Your task to perform on an android device: turn off picture-in-picture Image 0: 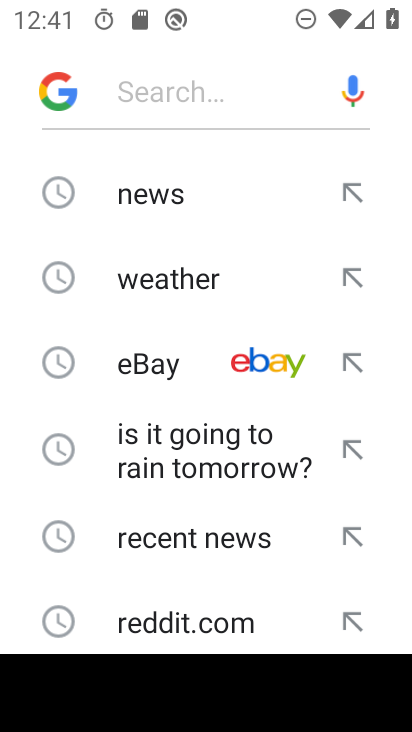
Step 0: press home button
Your task to perform on an android device: turn off picture-in-picture Image 1: 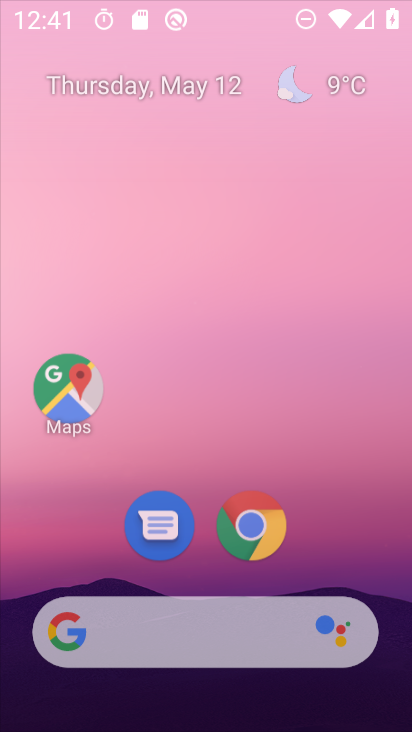
Step 1: drag from (213, 716) to (212, 310)
Your task to perform on an android device: turn off picture-in-picture Image 2: 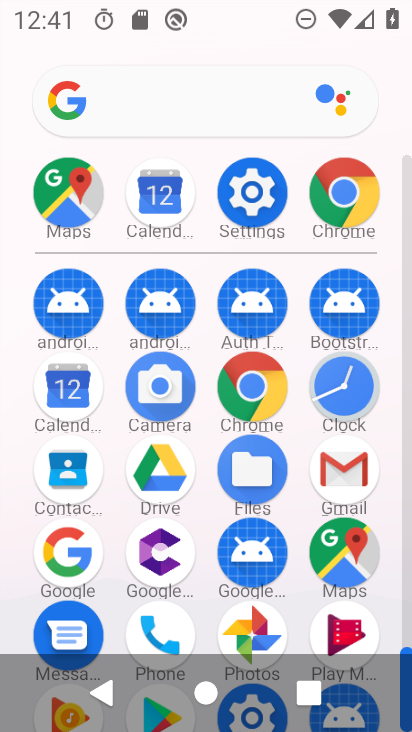
Step 2: click (250, 185)
Your task to perform on an android device: turn off picture-in-picture Image 3: 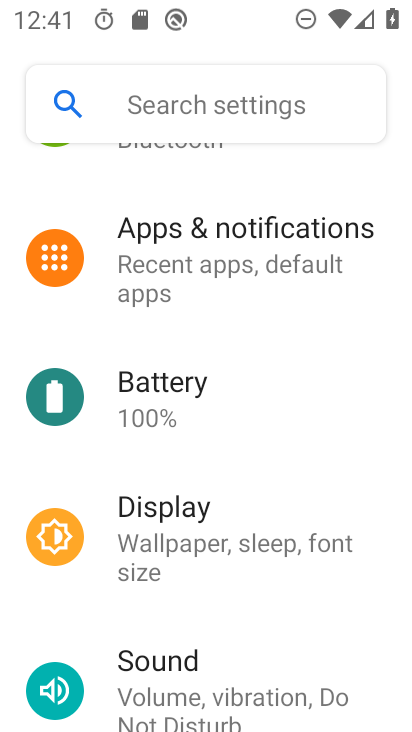
Step 3: click (188, 269)
Your task to perform on an android device: turn off picture-in-picture Image 4: 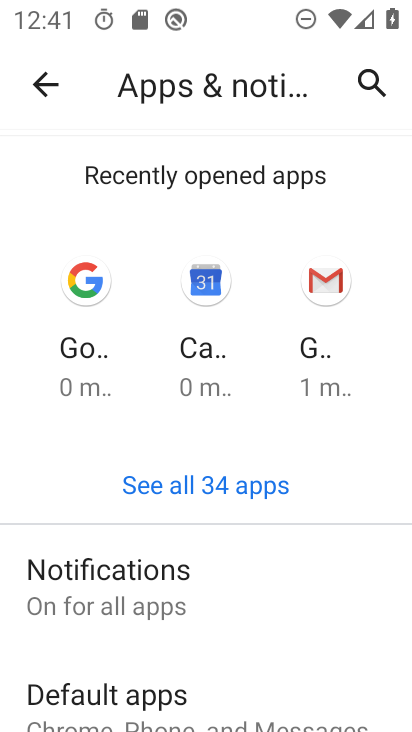
Step 4: drag from (134, 653) to (136, 257)
Your task to perform on an android device: turn off picture-in-picture Image 5: 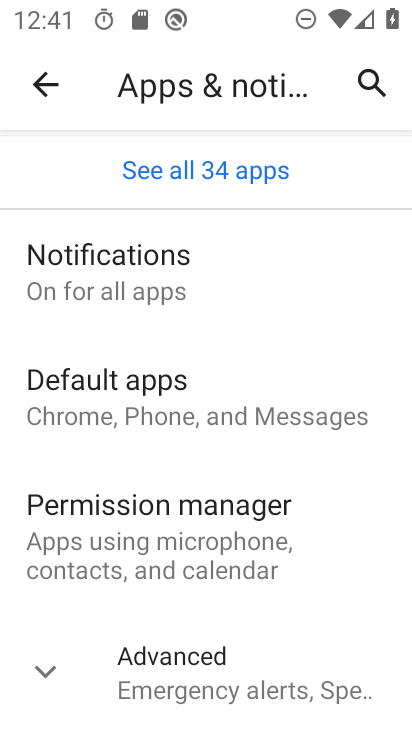
Step 5: click (194, 674)
Your task to perform on an android device: turn off picture-in-picture Image 6: 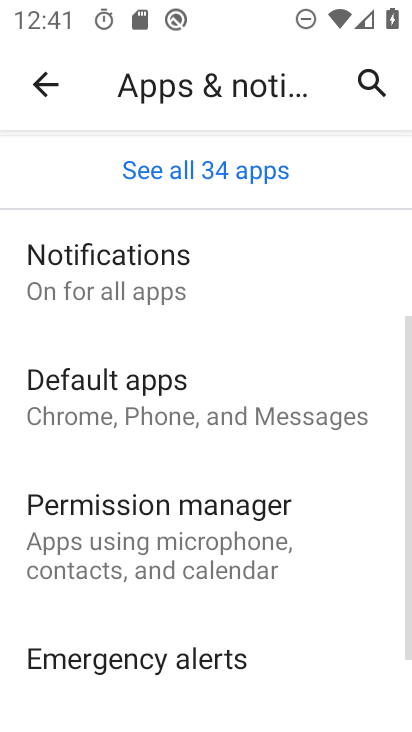
Step 6: drag from (208, 688) to (220, 187)
Your task to perform on an android device: turn off picture-in-picture Image 7: 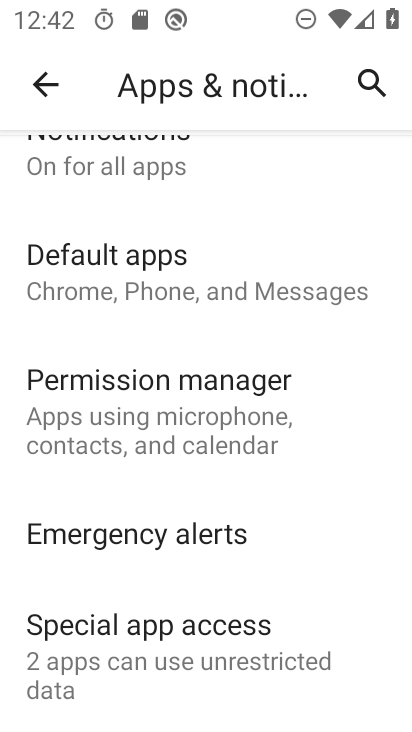
Step 7: click (120, 651)
Your task to perform on an android device: turn off picture-in-picture Image 8: 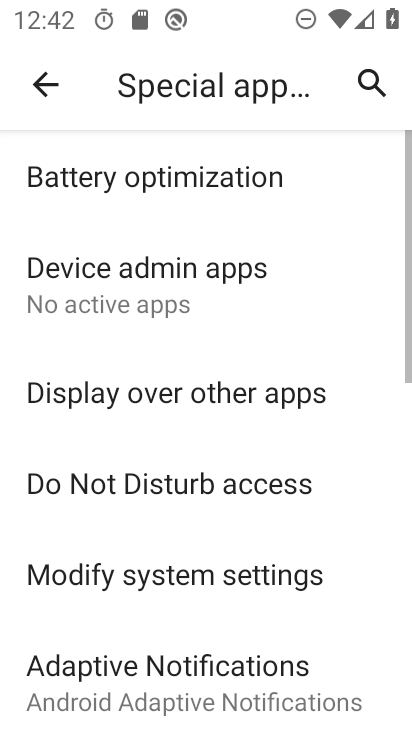
Step 8: drag from (177, 638) to (162, 307)
Your task to perform on an android device: turn off picture-in-picture Image 9: 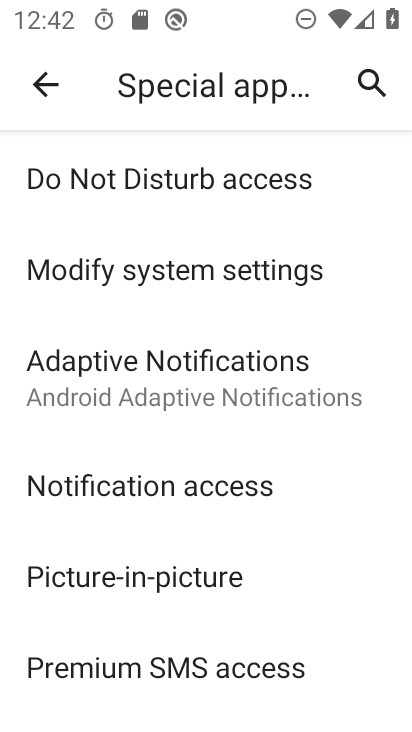
Step 9: click (156, 569)
Your task to perform on an android device: turn off picture-in-picture Image 10: 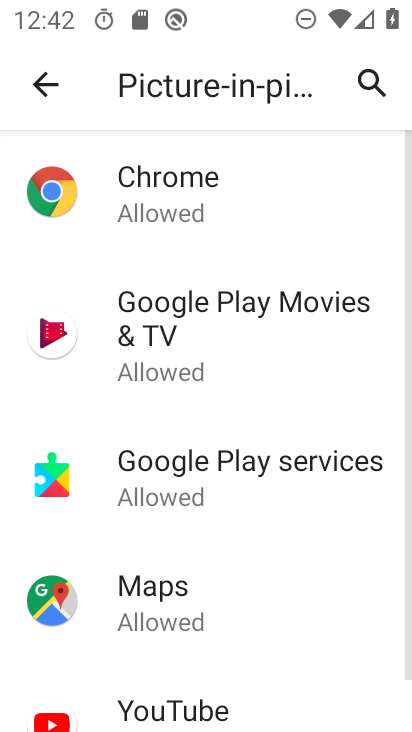
Step 10: drag from (174, 690) to (180, 347)
Your task to perform on an android device: turn off picture-in-picture Image 11: 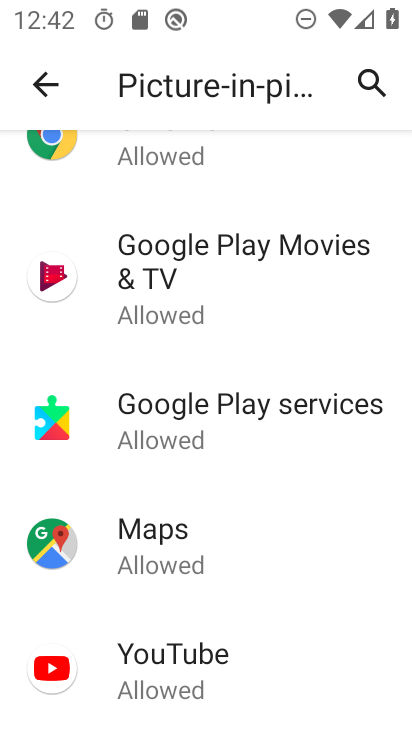
Step 11: click (163, 663)
Your task to perform on an android device: turn off picture-in-picture Image 12: 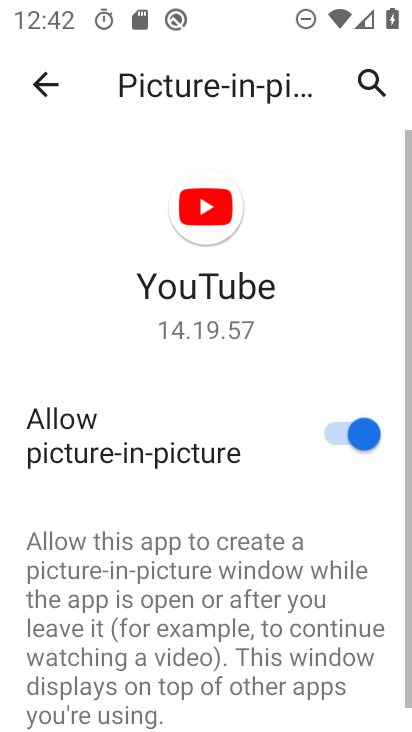
Step 12: click (335, 428)
Your task to perform on an android device: turn off picture-in-picture Image 13: 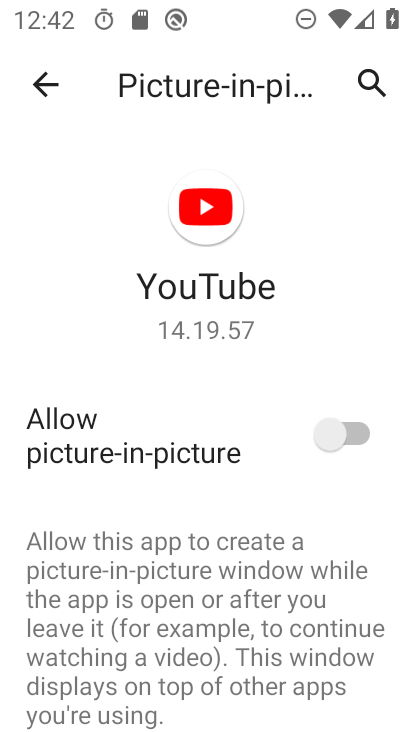
Step 13: task complete